Your task to perform on an android device: Show me recent news Image 0: 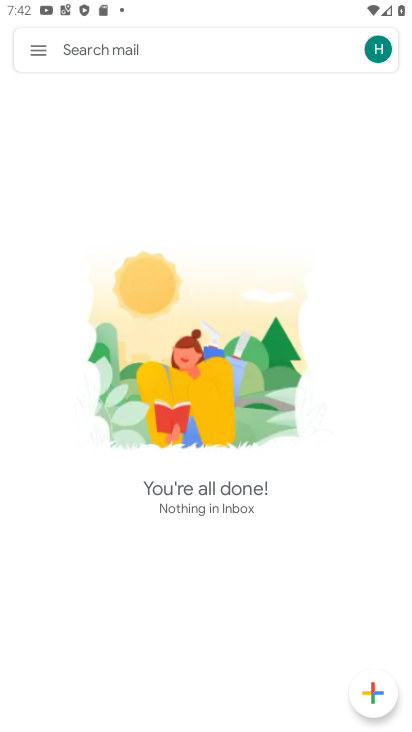
Step 0: press home button
Your task to perform on an android device: Show me recent news Image 1: 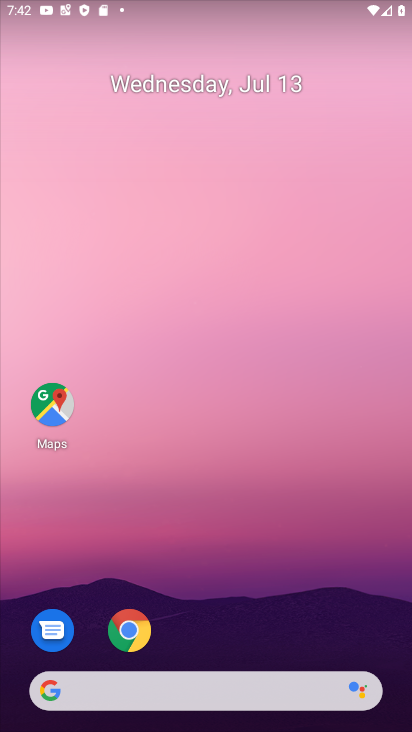
Step 1: task complete